Your task to perform on an android device: Open Google Image 0: 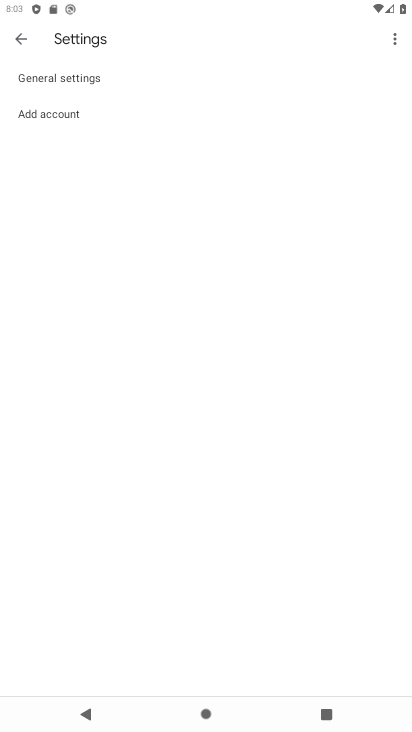
Step 0: drag from (228, 619) to (253, 146)
Your task to perform on an android device: Open Google Image 1: 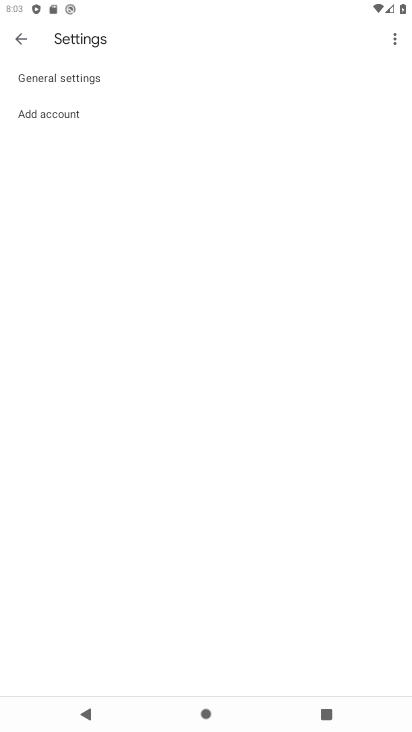
Step 1: press home button
Your task to perform on an android device: Open Google Image 2: 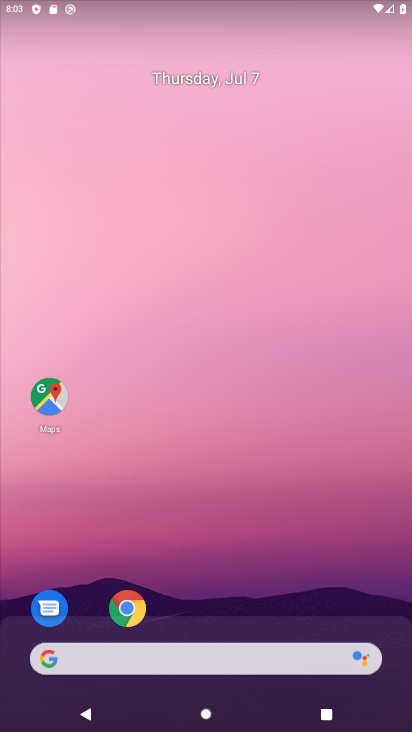
Step 2: click (195, 673)
Your task to perform on an android device: Open Google Image 3: 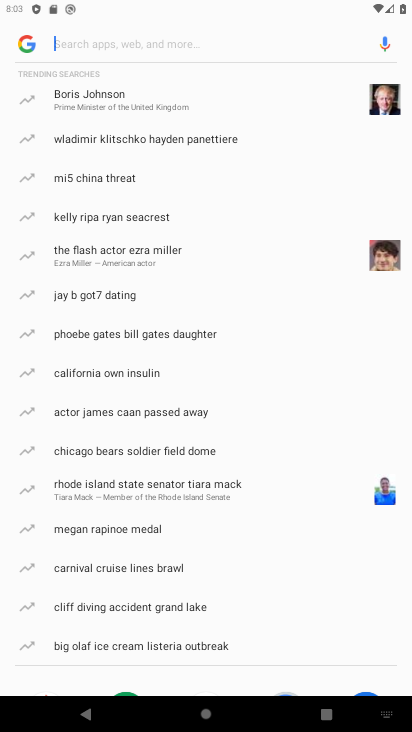
Step 3: task complete